Your task to perform on an android device: Go to Google maps Image 0: 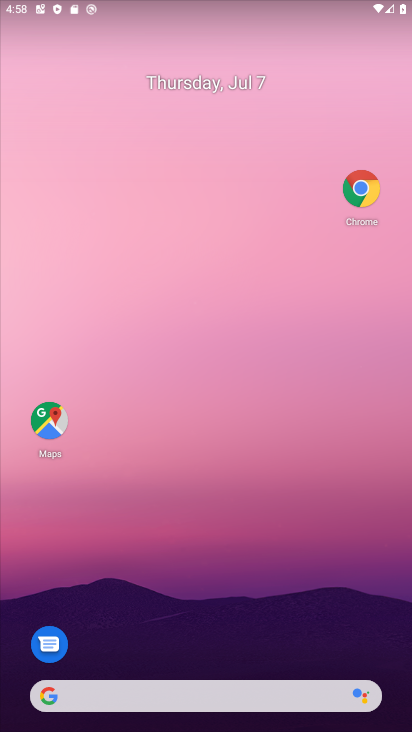
Step 0: press home button
Your task to perform on an android device: Go to Google maps Image 1: 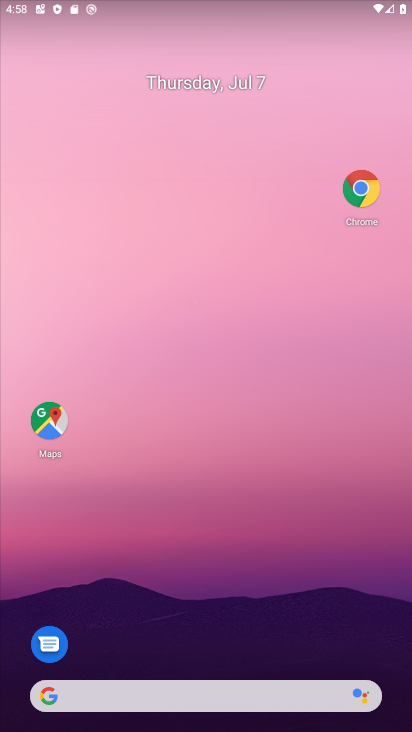
Step 1: press home button
Your task to perform on an android device: Go to Google maps Image 2: 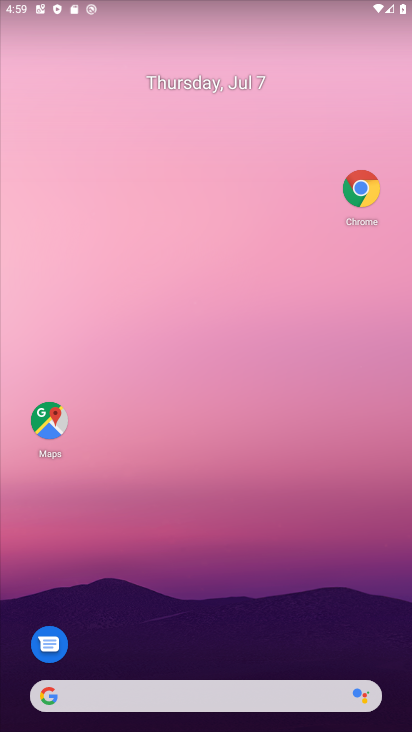
Step 2: click (61, 432)
Your task to perform on an android device: Go to Google maps Image 3: 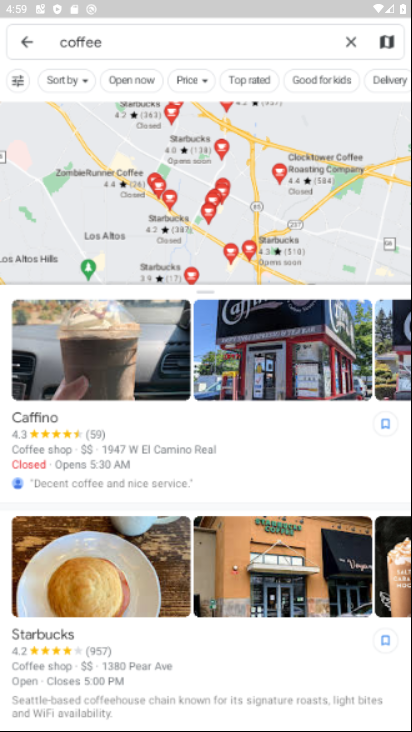
Step 3: task complete